Your task to perform on an android device: turn off improve location accuracy Image 0: 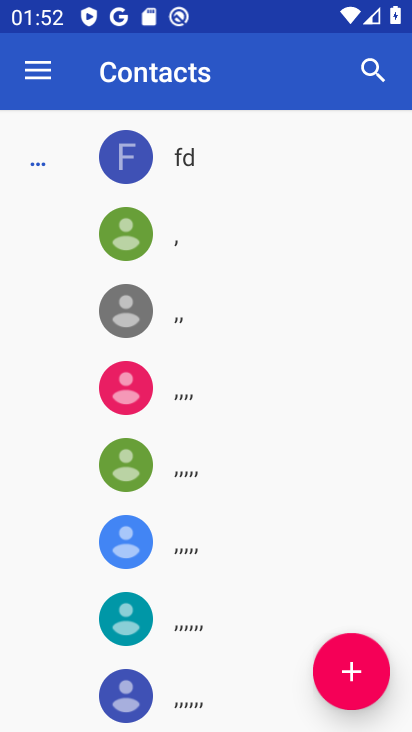
Step 0: press home button
Your task to perform on an android device: turn off improve location accuracy Image 1: 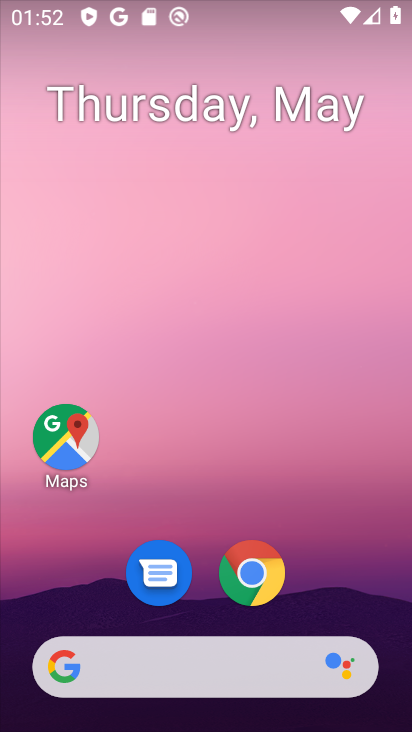
Step 1: drag from (290, 590) to (359, 335)
Your task to perform on an android device: turn off improve location accuracy Image 2: 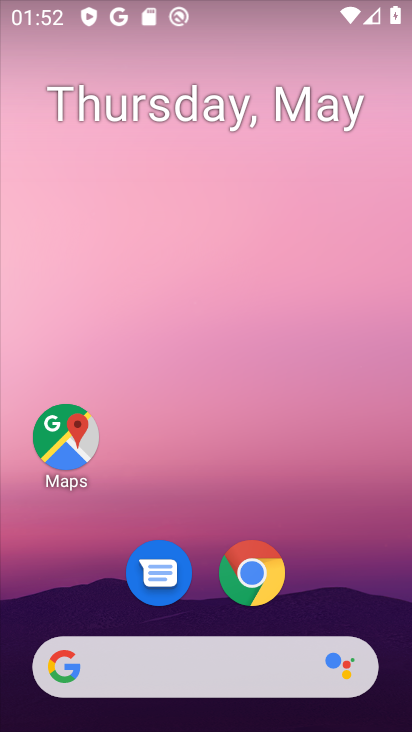
Step 2: drag from (224, 561) to (341, 4)
Your task to perform on an android device: turn off improve location accuracy Image 3: 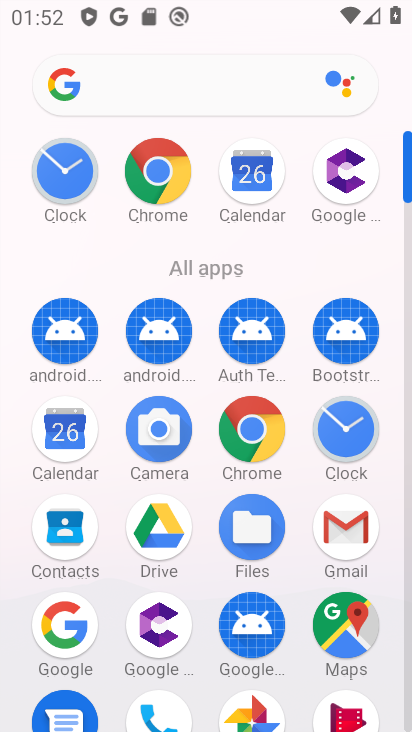
Step 3: drag from (214, 649) to (229, 352)
Your task to perform on an android device: turn off improve location accuracy Image 4: 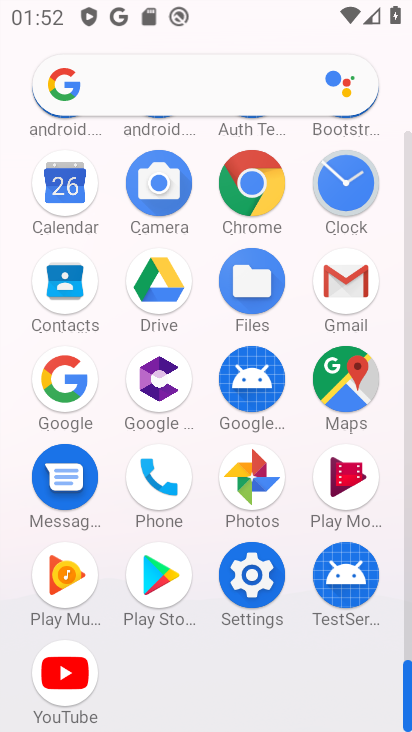
Step 4: click (239, 578)
Your task to perform on an android device: turn off improve location accuracy Image 5: 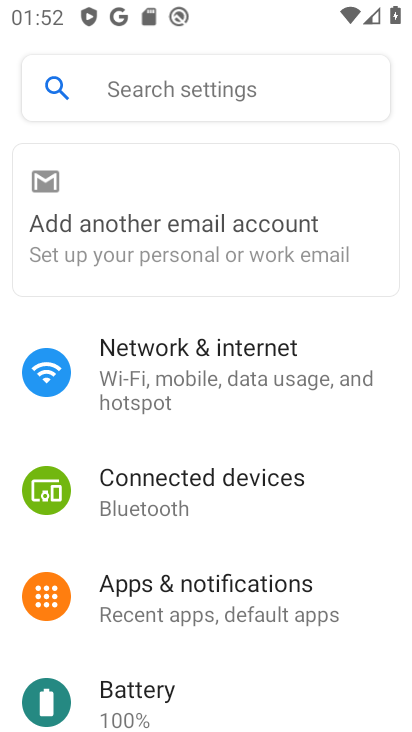
Step 5: drag from (150, 621) to (227, 228)
Your task to perform on an android device: turn off improve location accuracy Image 6: 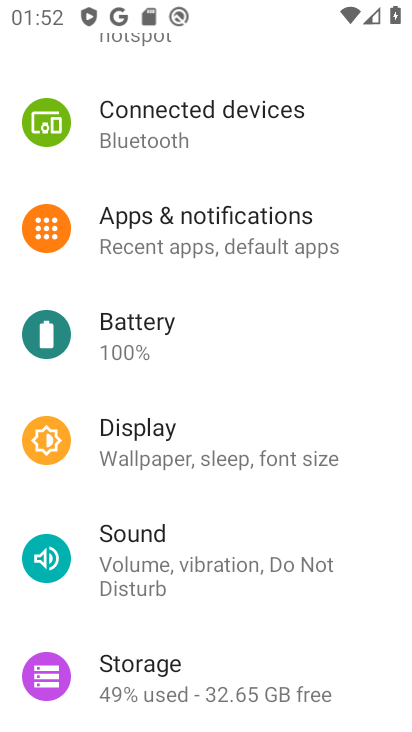
Step 6: drag from (140, 604) to (215, 190)
Your task to perform on an android device: turn off improve location accuracy Image 7: 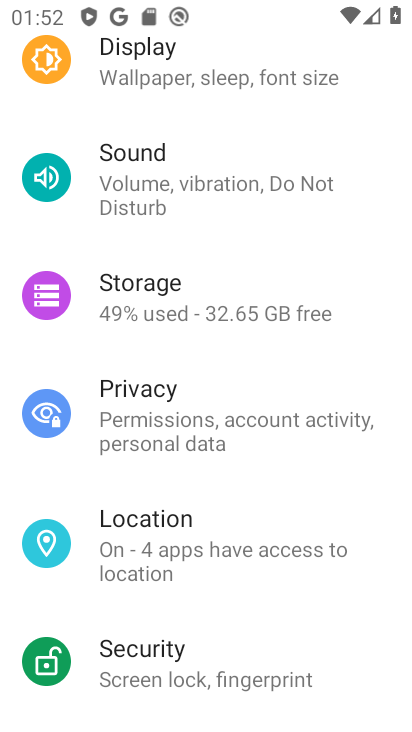
Step 7: click (252, 537)
Your task to perform on an android device: turn off improve location accuracy Image 8: 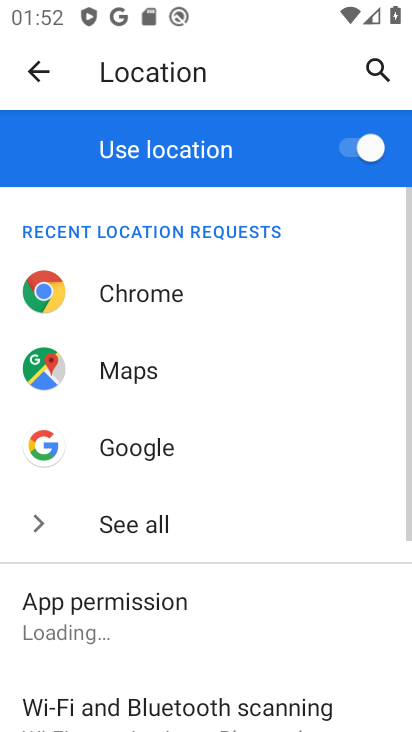
Step 8: drag from (190, 634) to (238, 402)
Your task to perform on an android device: turn off improve location accuracy Image 9: 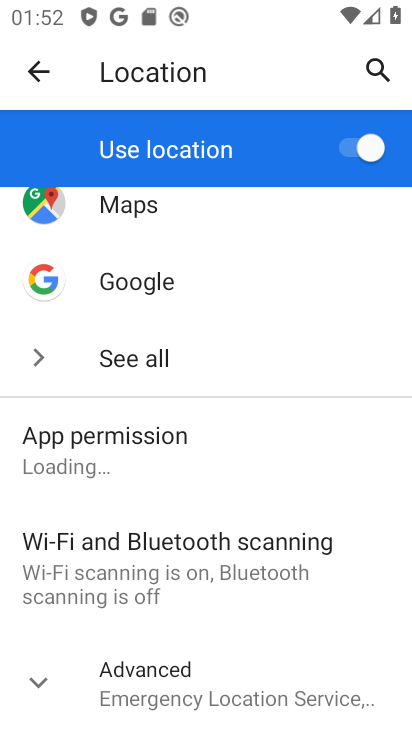
Step 9: click (137, 666)
Your task to perform on an android device: turn off improve location accuracy Image 10: 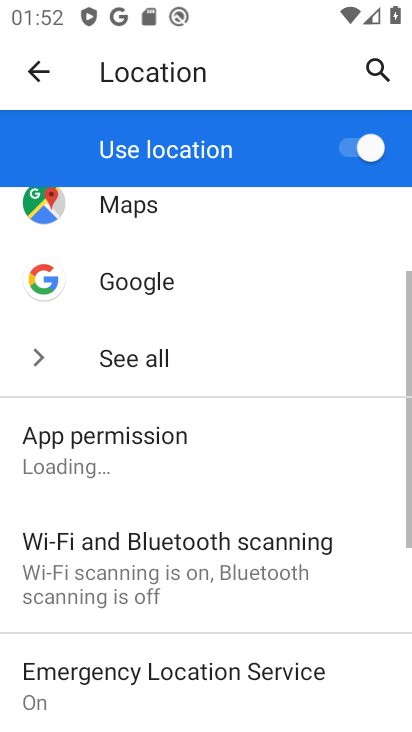
Step 10: drag from (258, 640) to (302, 355)
Your task to perform on an android device: turn off improve location accuracy Image 11: 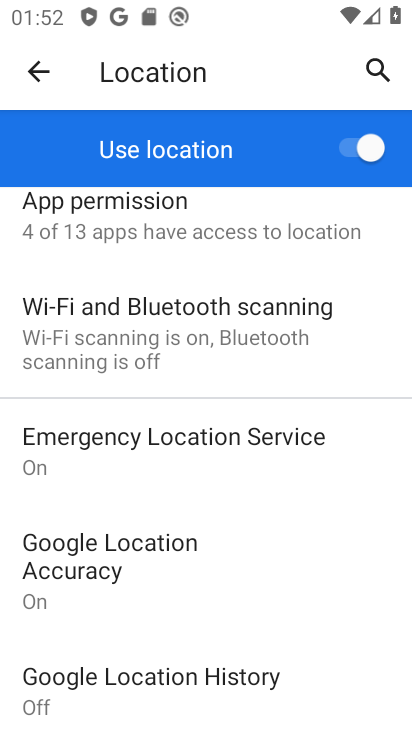
Step 11: click (89, 587)
Your task to perform on an android device: turn off improve location accuracy Image 12: 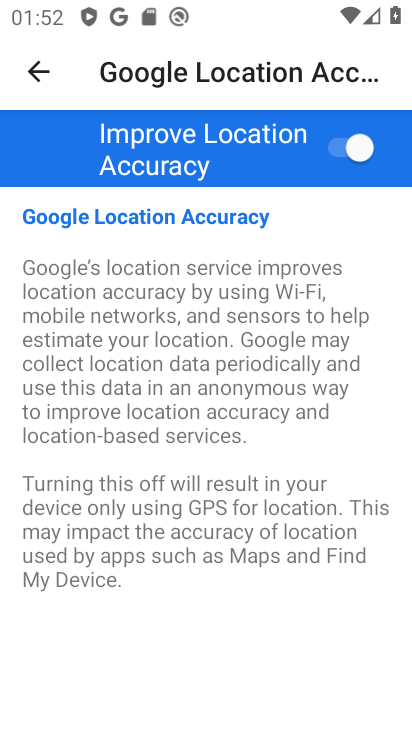
Step 12: click (346, 137)
Your task to perform on an android device: turn off improve location accuracy Image 13: 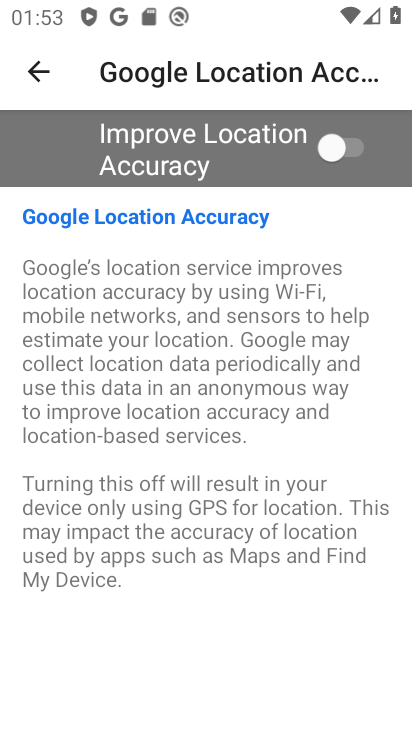
Step 13: task complete